Your task to perform on an android device: Search for pizza restaurants on Maps Image 0: 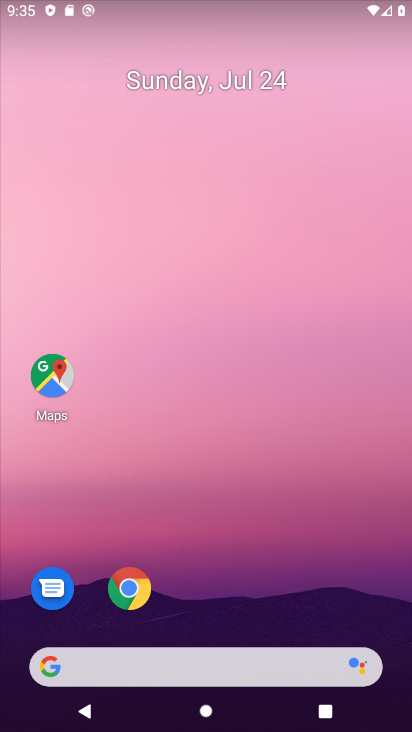
Step 0: drag from (288, 631) to (253, 46)
Your task to perform on an android device: Search for pizza restaurants on Maps Image 1: 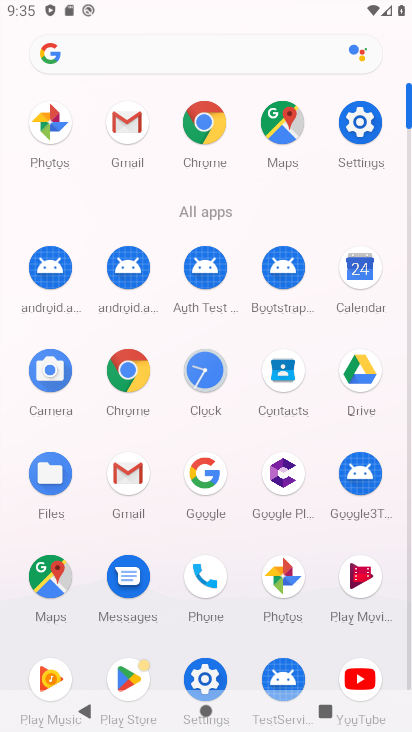
Step 1: click (40, 568)
Your task to perform on an android device: Search for pizza restaurants on Maps Image 2: 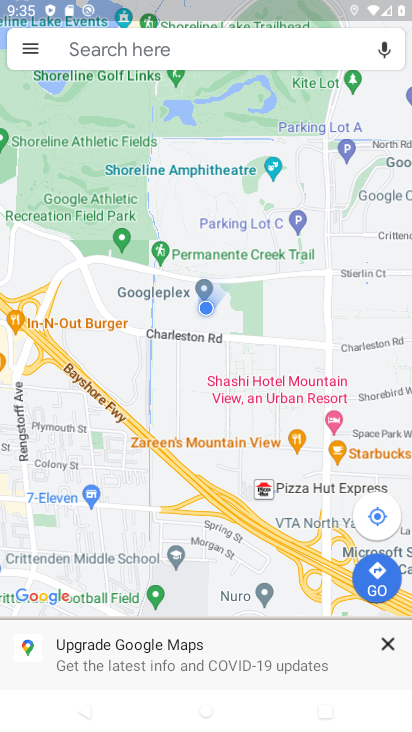
Step 2: click (296, 51)
Your task to perform on an android device: Search for pizza restaurants on Maps Image 3: 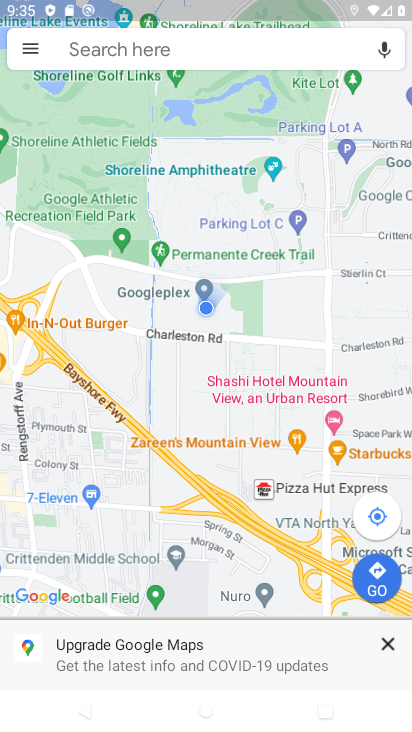
Step 3: click (295, 51)
Your task to perform on an android device: Search for pizza restaurants on Maps Image 4: 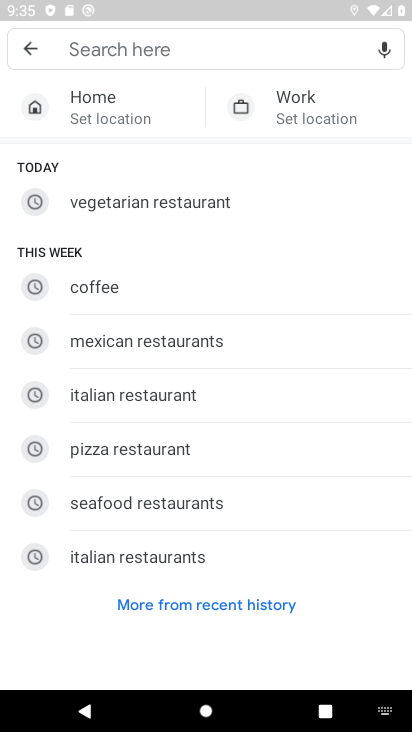
Step 4: click (181, 454)
Your task to perform on an android device: Search for pizza restaurants on Maps Image 5: 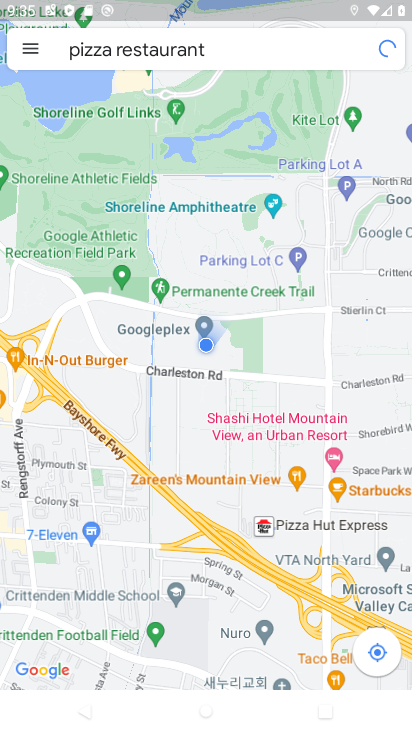
Step 5: task complete